Your task to perform on an android device: Show me the alarms in the clock app Image 0: 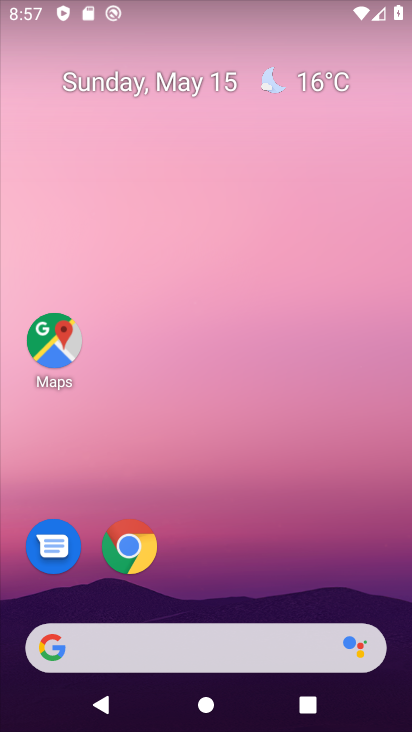
Step 0: drag from (153, 609) to (238, 148)
Your task to perform on an android device: Show me the alarms in the clock app Image 1: 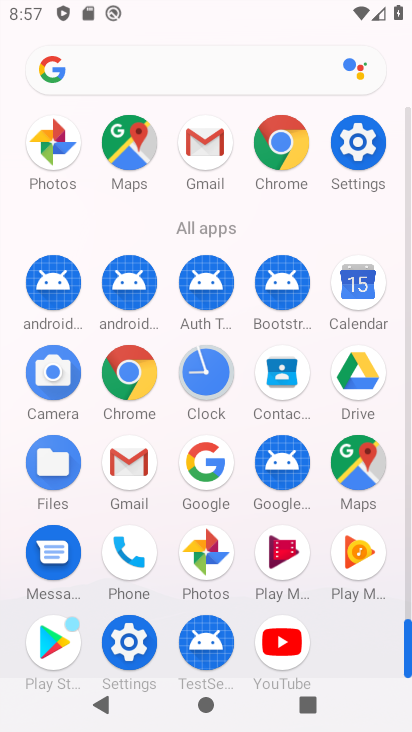
Step 1: click (214, 385)
Your task to perform on an android device: Show me the alarms in the clock app Image 2: 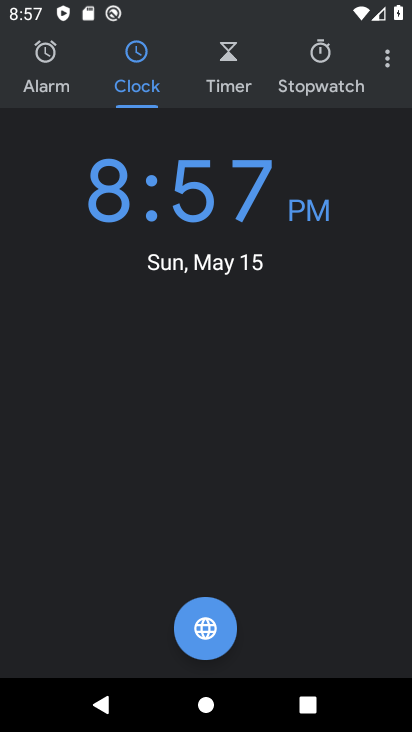
Step 2: click (32, 79)
Your task to perform on an android device: Show me the alarms in the clock app Image 3: 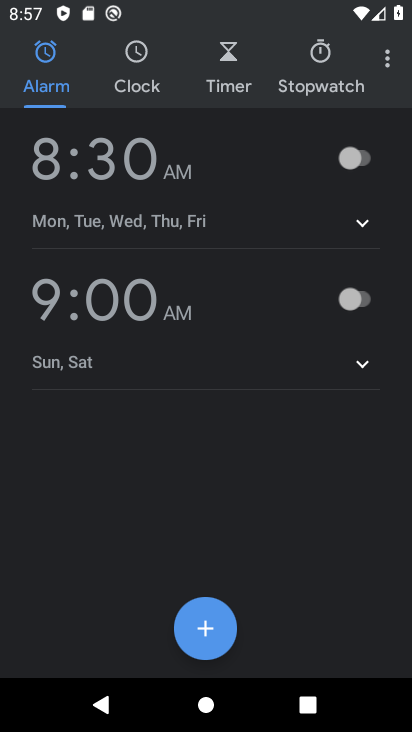
Step 3: task complete